Your task to perform on an android device: toggle translation in the chrome app Image 0: 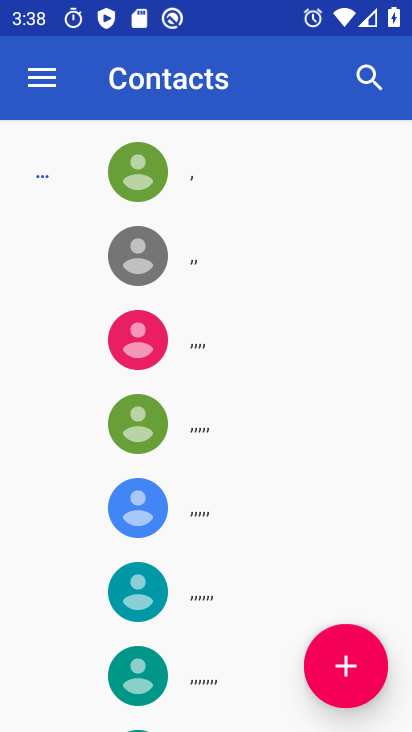
Step 0: press home button
Your task to perform on an android device: toggle translation in the chrome app Image 1: 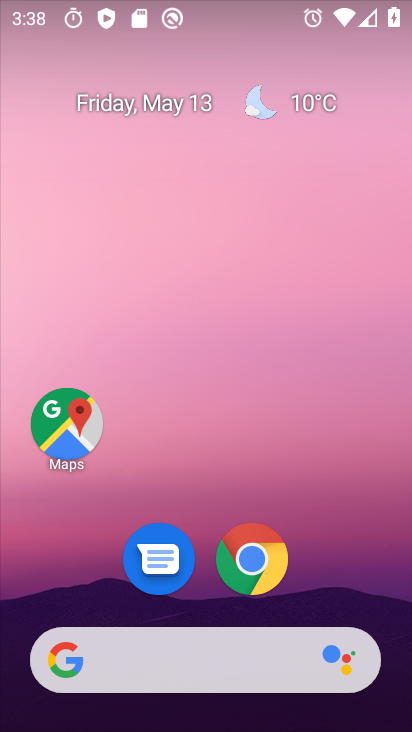
Step 1: click (243, 573)
Your task to perform on an android device: toggle translation in the chrome app Image 2: 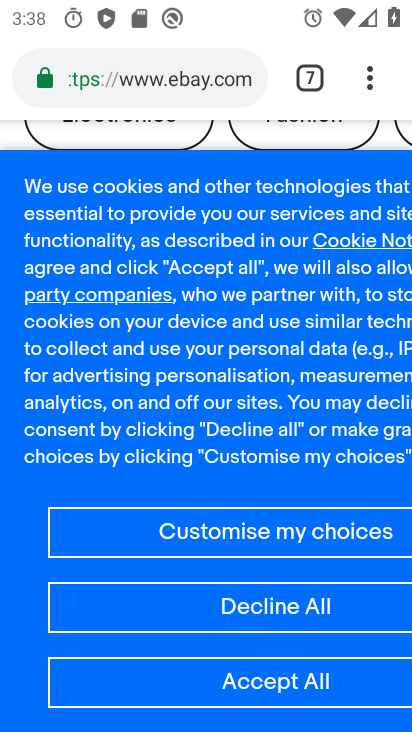
Step 2: click (360, 69)
Your task to perform on an android device: toggle translation in the chrome app Image 3: 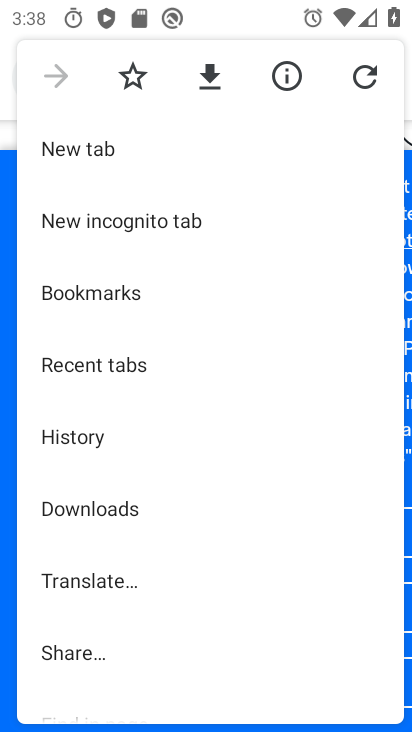
Step 3: drag from (130, 668) to (163, 390)
Your task to perform on an android device: toggle translation in the chrome app Image 4: 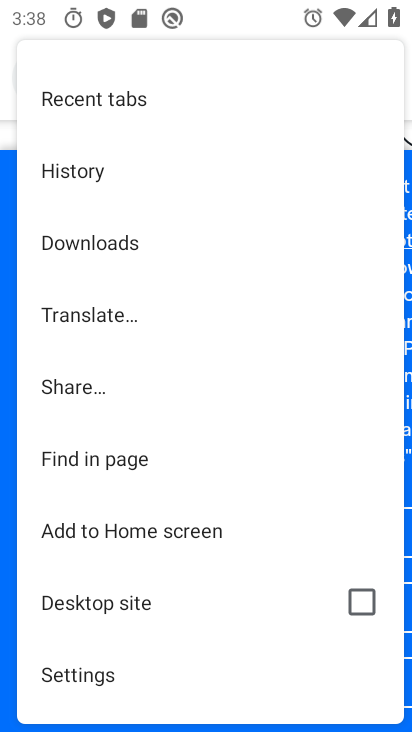
Step 4: drag from (113, 619) to (183, 364)
Your task to perform on an android device: toggle translation in the chrome app Image 5: 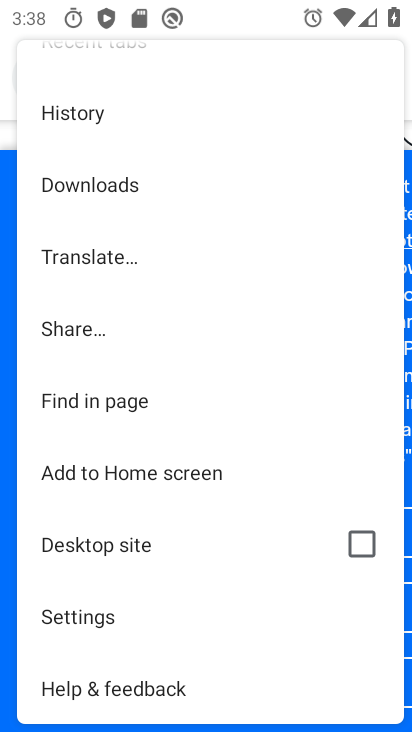
Step 5: click (110, 617)
Your task to perform on an android device: toggle translation in the chrome app Image 6: 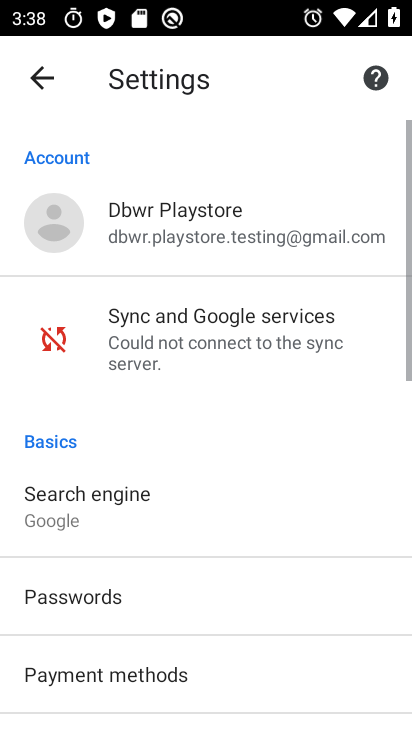
Step 6: drag from (120, 613) to (214, 313)
Your task to perform on an android device: toggle translation in the chrome app Image 7: 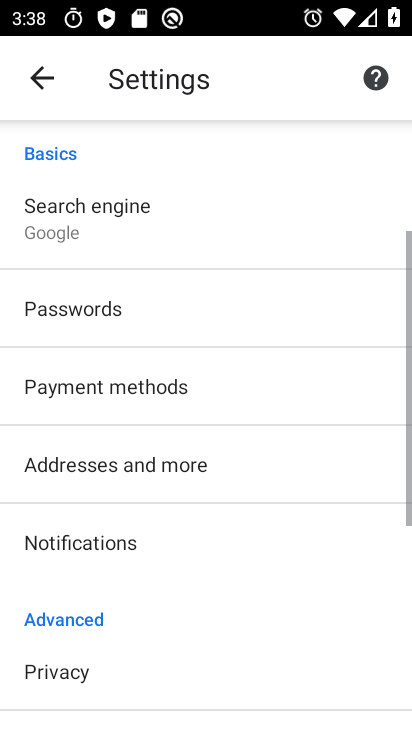
Step 7: drag from (227, 604) to (225, 322)
Your task to perform on an android device: toggle translation in the chrome app Image 8: 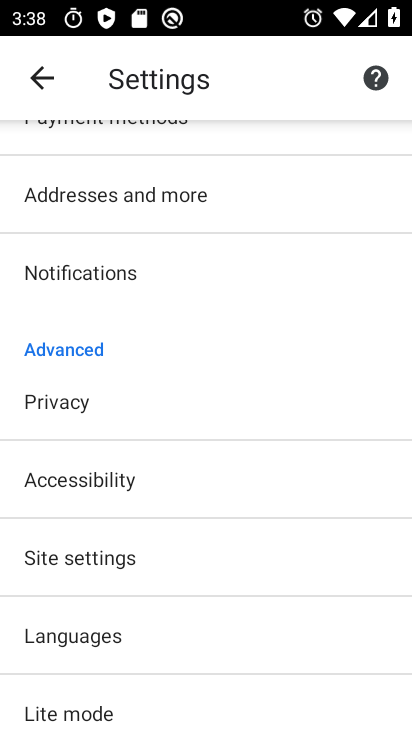
Step 8: drag from (160, 632) to (177, 401)
Your task to perform on an android device: toggle translation in the chrome app Image 9: 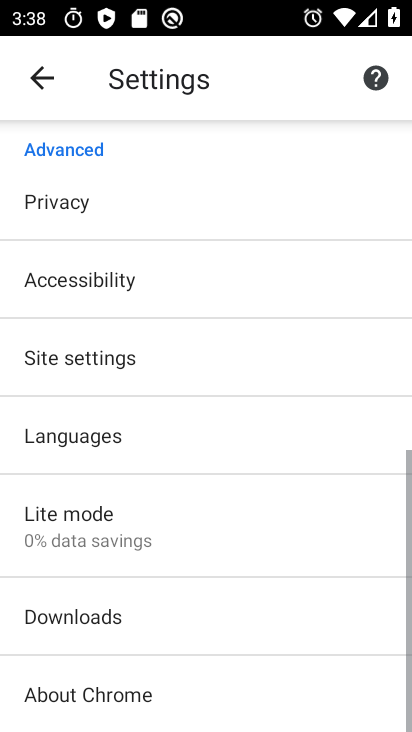
Step 9: click (160, 431)
Your task to perform on an android device: toggle translation in the chrome app Image 10: 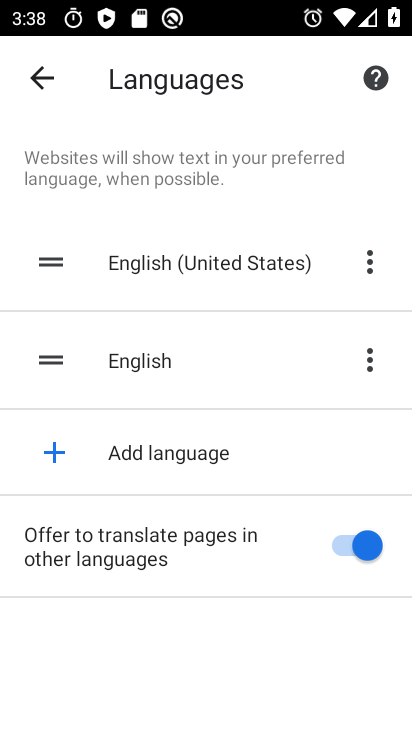
Step 10: click (343, 530)
Your task to perform on an android device: toggle translation in the chrome app Image 11: 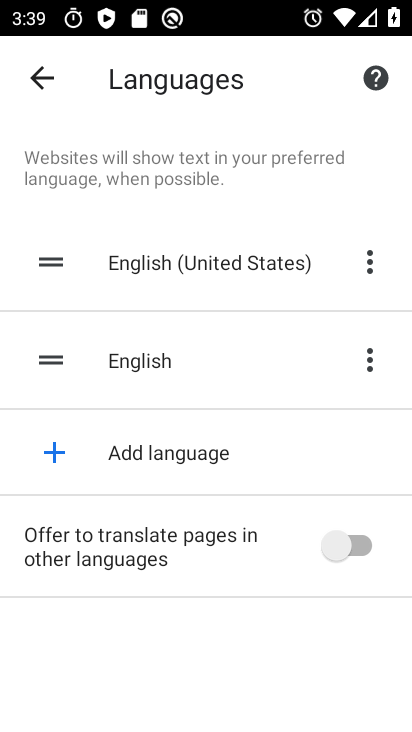
Step 11: task complete